Your task to perform on an android device: read, delete, or share a saved page in the chrome app Image 0: 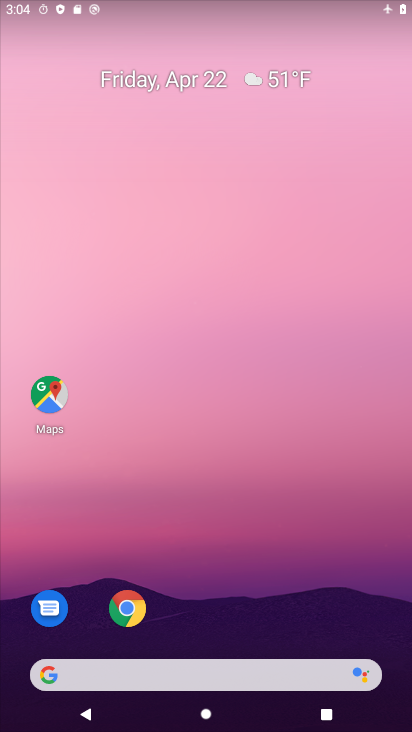
Step 0: click (126, 605)
Your task to perform on an android device: read, delete, or share a saved page in the chrome app Image 1: 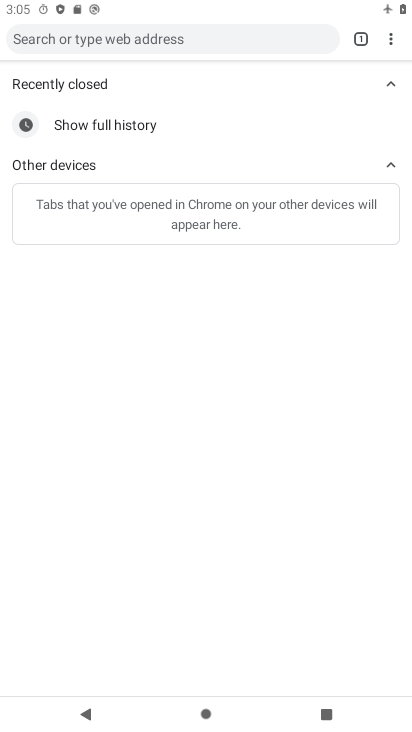
Step 1: press home button
Your task to perform on an android device: read, delete, or share a saved page in the chrome app Image 2: 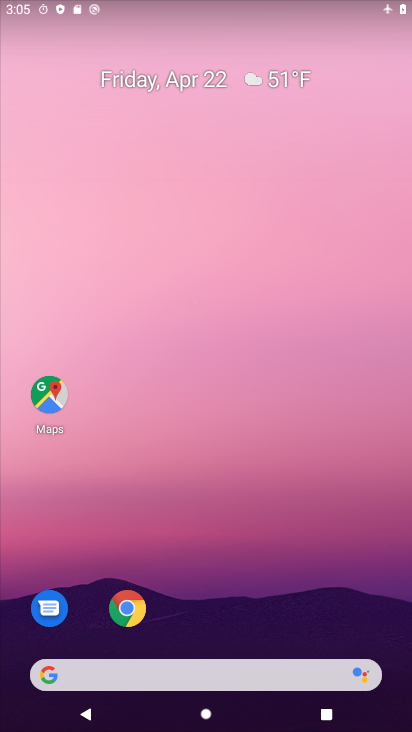
Step 2: click (125, 608)
Your task to perform on an android device: read, delete, or share a saved page in the chrome app Image 3: 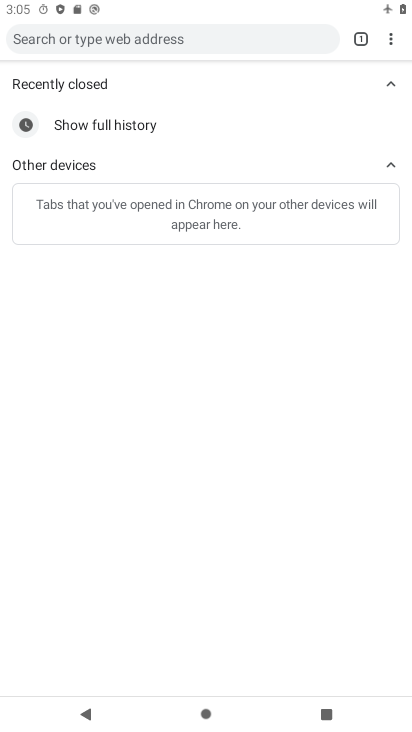
Step 3: click (394, 38)
Your task to perform on an android device: read, delete, or share a saved page in the chrome app Image 4: 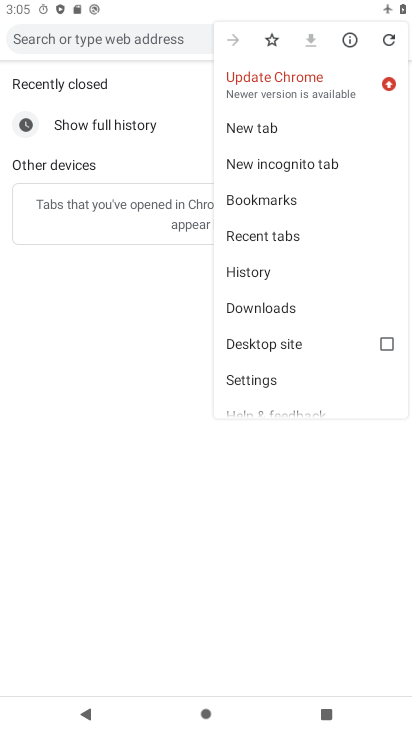
Step 4: click (261, 306)
Your task to perform on an android device: read, delete, or share a saved page in the chrome app Image 5: 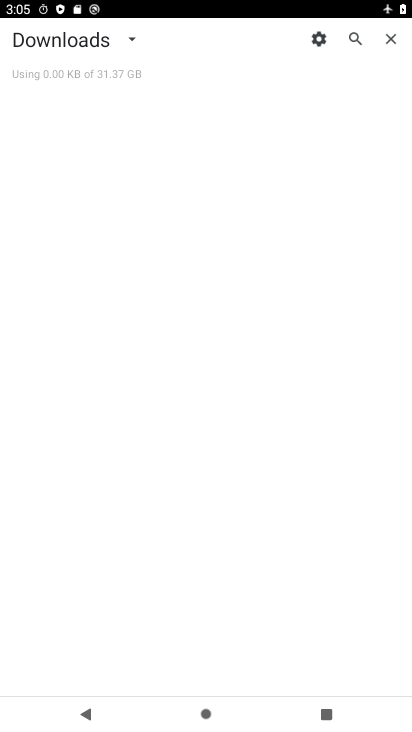
Step 5: click (103, 41)
Your task to perform on an android device: read, delete, or share a saved page in the chrome app Image 6: 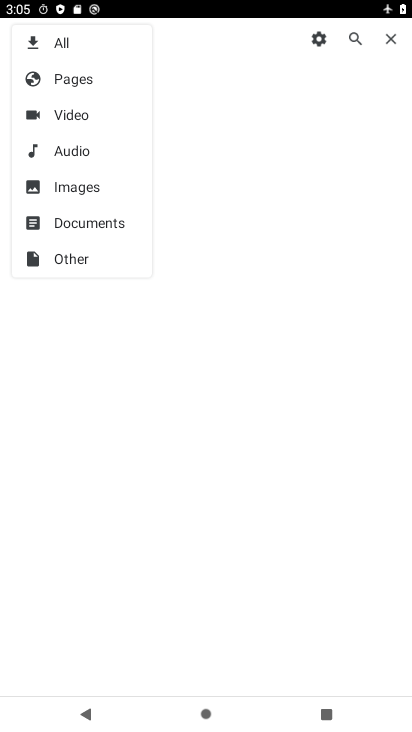
Step 6: click (74, 84)
Your task to perform on an android device: read, delete, or share a saved page in the chrome app Image 7: 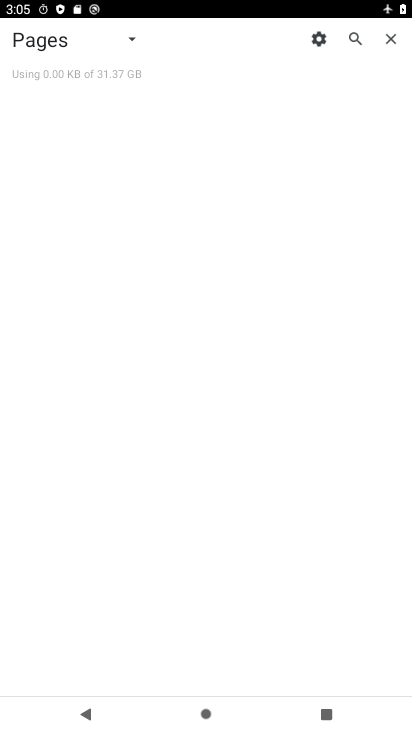
Step 7: task complete